Your task to perform on an android device: toggle sleep mode Image 0: 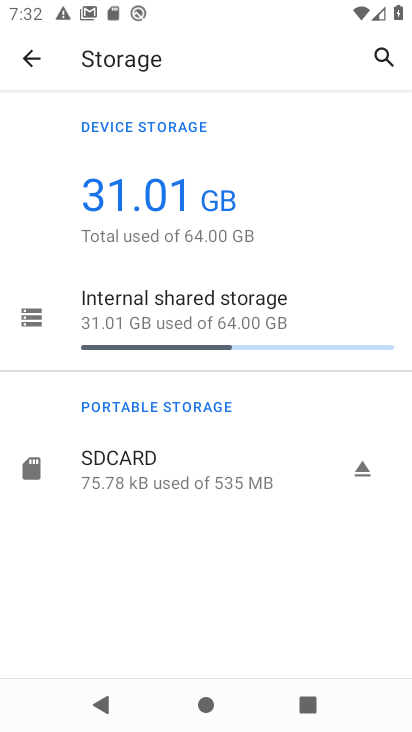
Step 0: task complete